Your task to perform on an android device: turn on showing notifications on the lock screen Image 0: 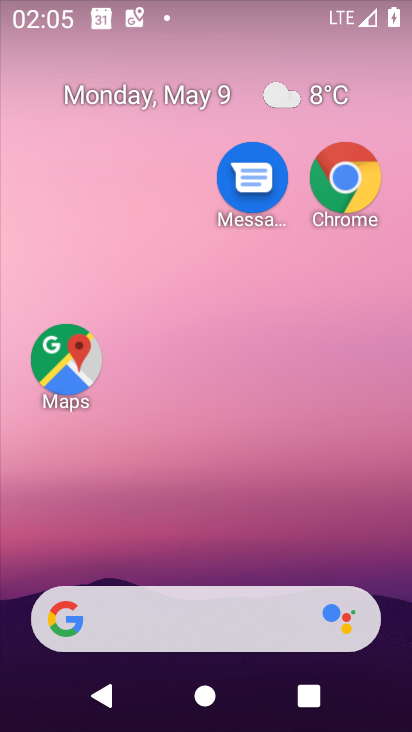
Step 0: drag from (246, 563) to (203, 1)
Your task to perform on an android device: turn on showing notifications on the lock screen Image 1: 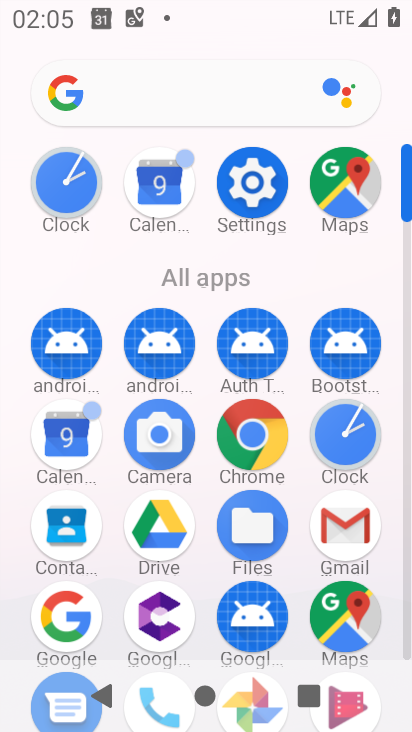
Step 1: click (243, 188)
Your task to perform on an android device: turn on showing notifications on the lock screen Image 2: 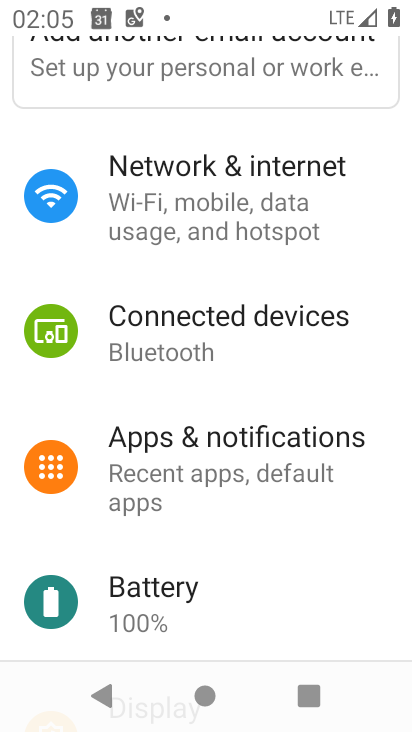
Step 2: drag from (217, 578) to (222, 102)
Your task to perform on an android device: turn on showing notifications on the lock screen Image 3: 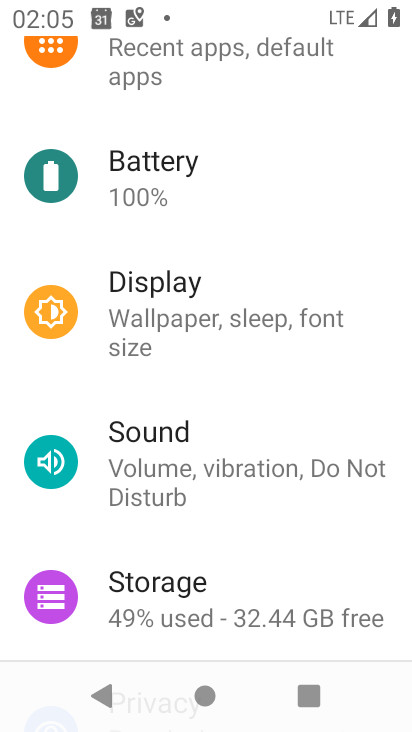
Step 3: drag from (189, 563) to (237, 212)
Your task to perform on an android device: turn on showing notifications on the lock screen Image 4: 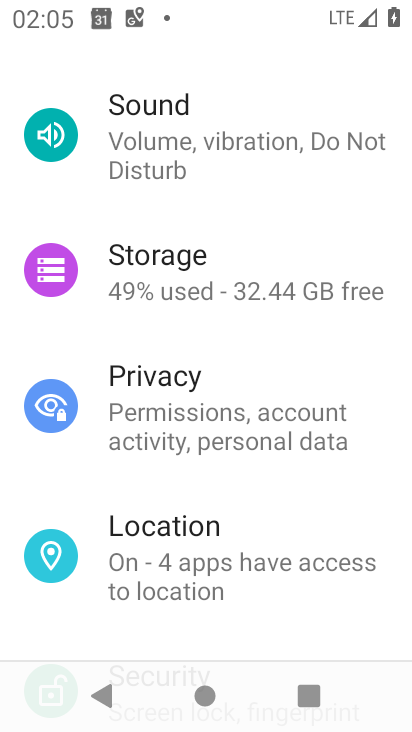
Step 4: drag from (228, 591) to (247, 281)
Your task to perform on an android device: turn on showing notifications on the lock screen Image 5: 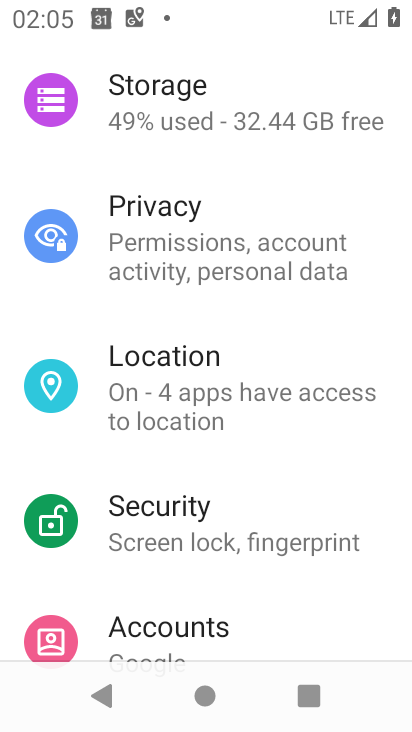
Step 5: drag from (195, 340) to (225, 691)
Your task to perform on an android device: turn on showing notifications on the lock screen Image 6: 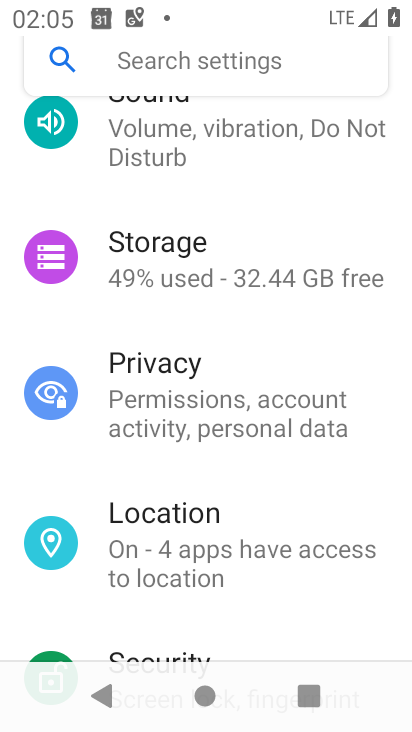
Step 6: drag from (235, 246) to (241, 588)
Your task to perform on an android device: turn on showing notifications on the lock screen Image 7: 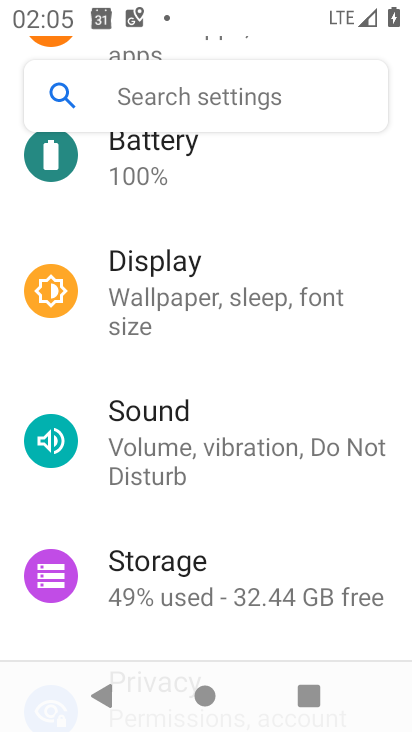
Step 7: drag from (215, 279) to (226, 548)
Your task to perform on an android device: turn on showing notifications on the lock screen Image 8: 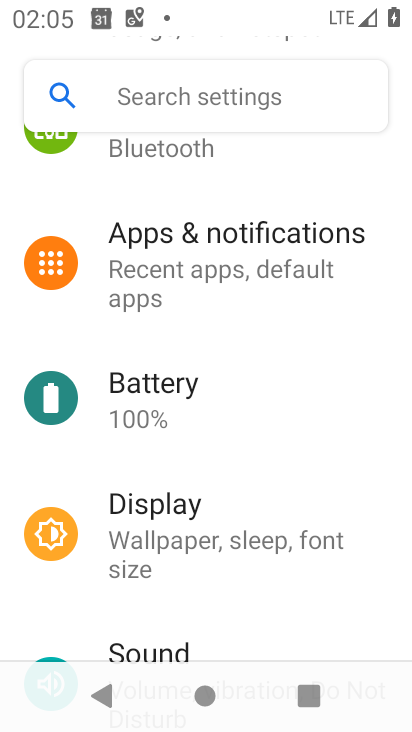
Step 8: click (238, 282)
Your task to perform on an android device: turn on showing notifications on the lock screen Image 9: 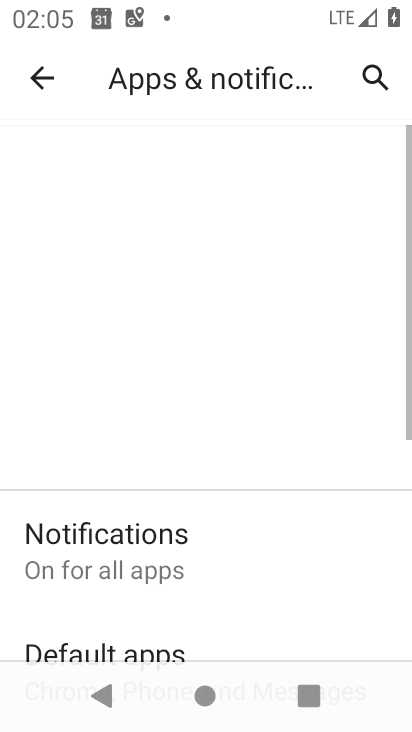
Step 9: drag from (299, 583) to (280, 6)
Your task to perform on an android device: turn on showing notifications on the lock screen Image 10: 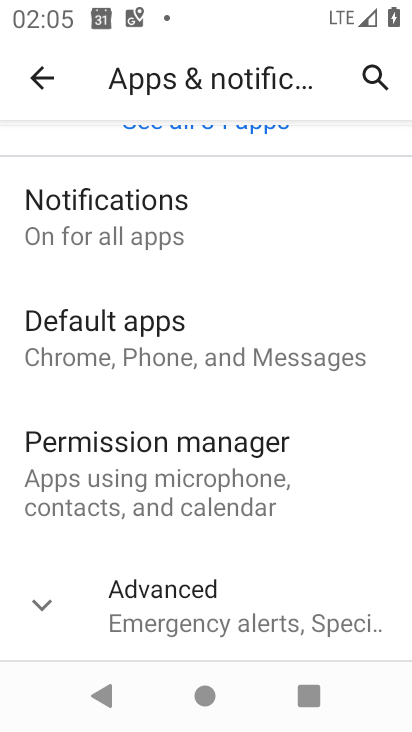
Step 10: click (217, 603)
Your task to perform on an android device: turn on showing notifications on the lock screen Image 11: 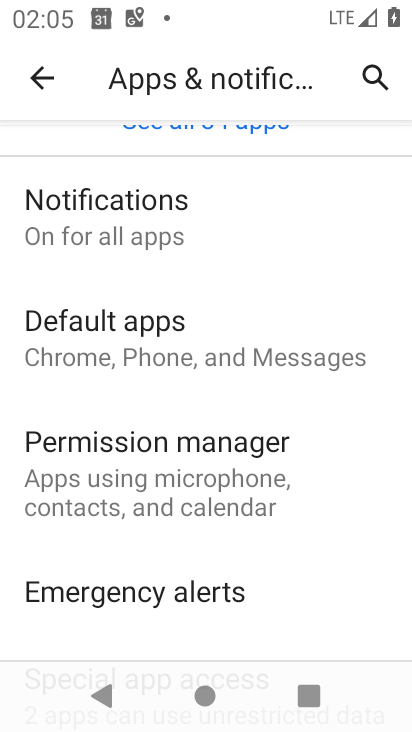
Step 11: drag from (248, 598) to (279, 126)
Your task to perform on an android device: turn on showing notifications on the lock screen Image 12: 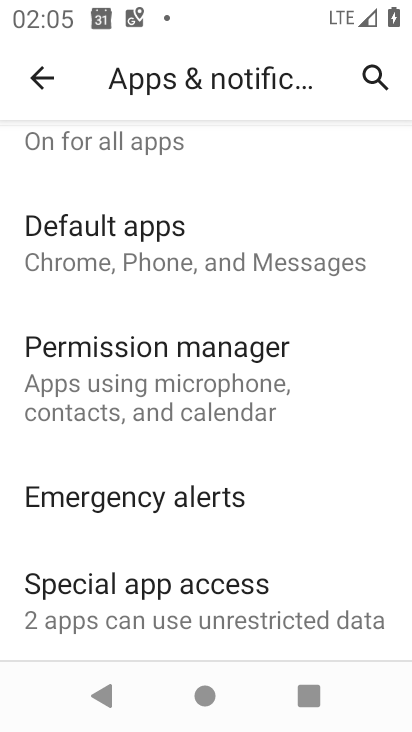
Step 12: drag from (198, 322) to (228, 623)
Your task to perform on an android device: turn on showing notifications on the lock screen Image 13: 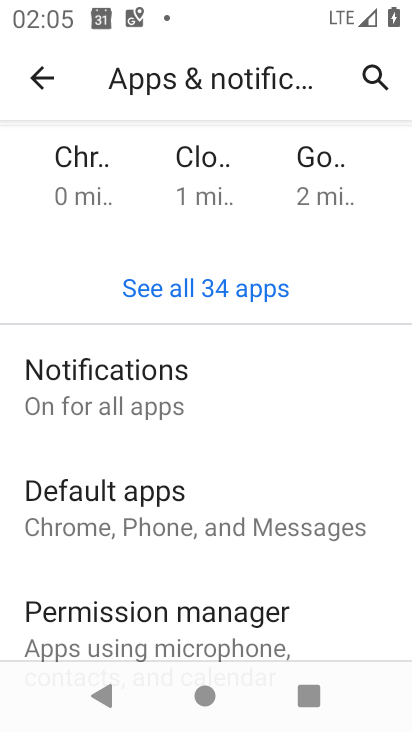
Step 13: click (171, 412)
Your task to perform on an android device: turn on showing notifications on the lock screen Image 14: 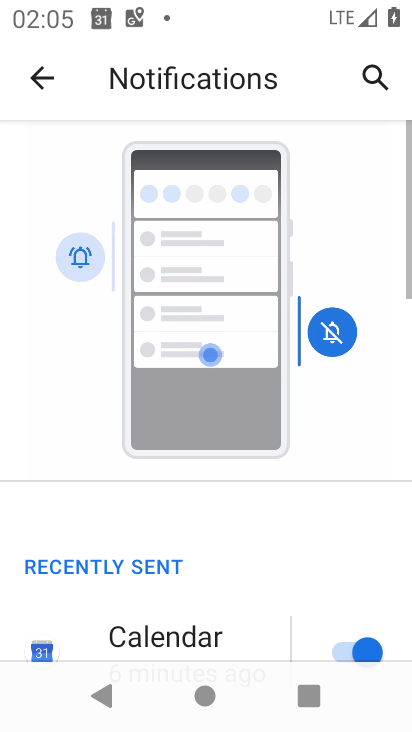
Step 14: drag from (311, 512) to (304, 86)
Your task to perform on an android device: turn on showing notifications on the lock screen Image 15: 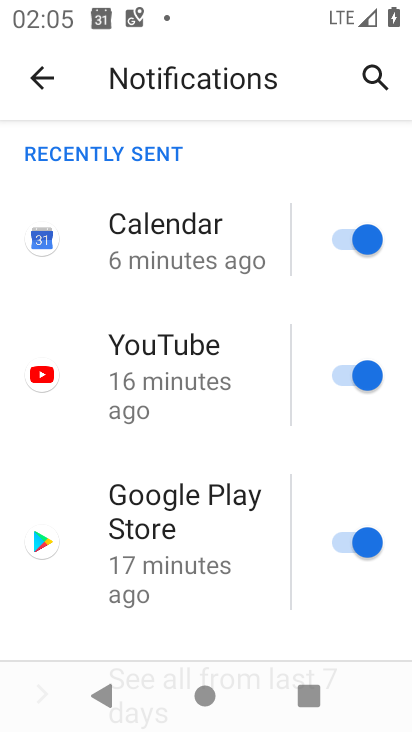
Step 15: drag from (260, 590) to (284, 176)
Your task to perform on an android device: turn on showing notifications on the lock screen Image 16: 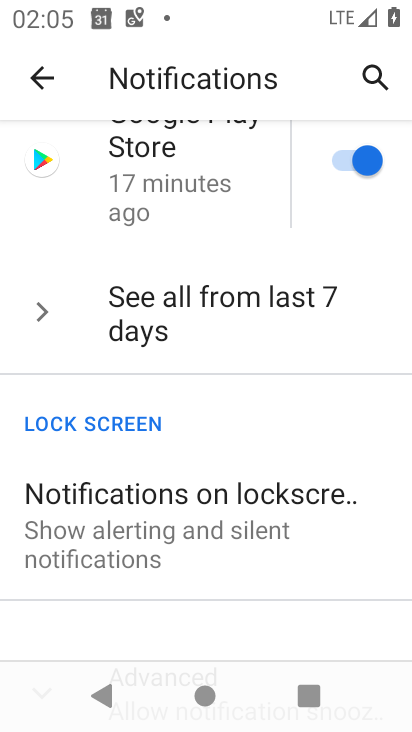
Step 16: click (217, 525)
Your task to perform on an android device: turn on showing notifications on the lock screen Image 17: 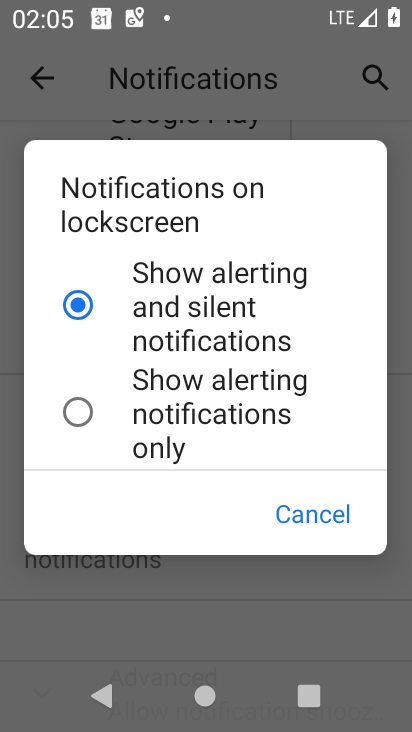
Step 17: click (281, 425)
Your task to perform on an android device: turn on showing notifications on the lock screen Image 18: 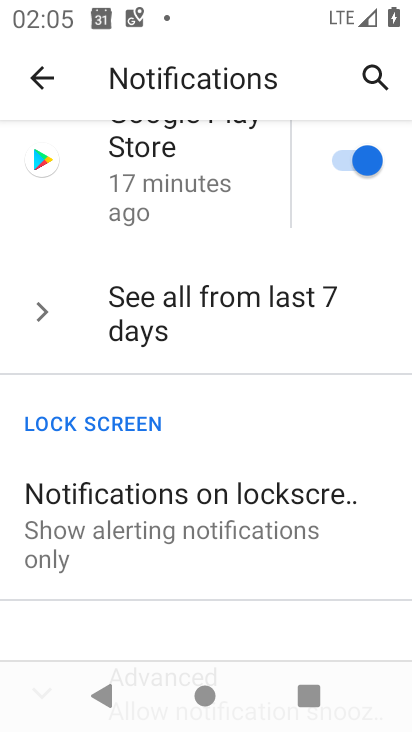
Step 18: task complete